Your task to perform on an android device: Go to internet settings Image 0: 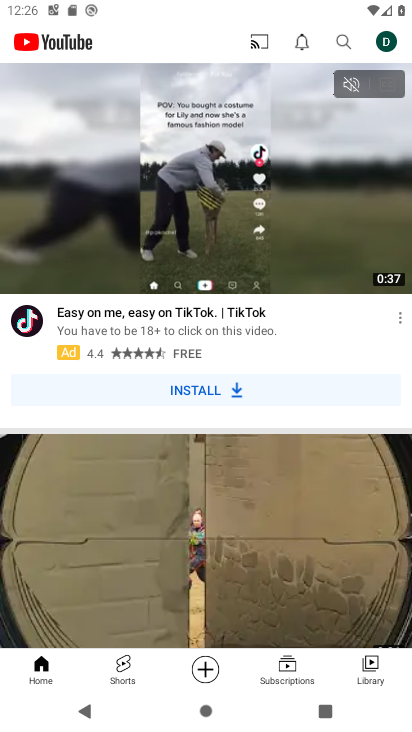
Step 0: press home button
Your task to perform on an android device: Go to internet settings Image 1: 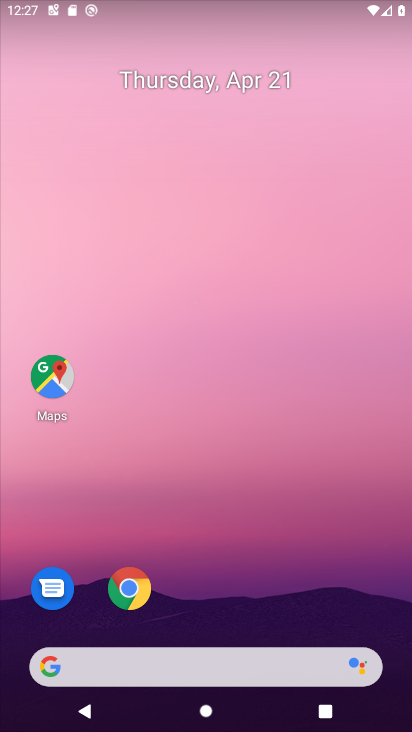
Step 1: drag from (233, 629) to (259, 6)
Your task to perform on an android device: Go to internet settings Image 2: 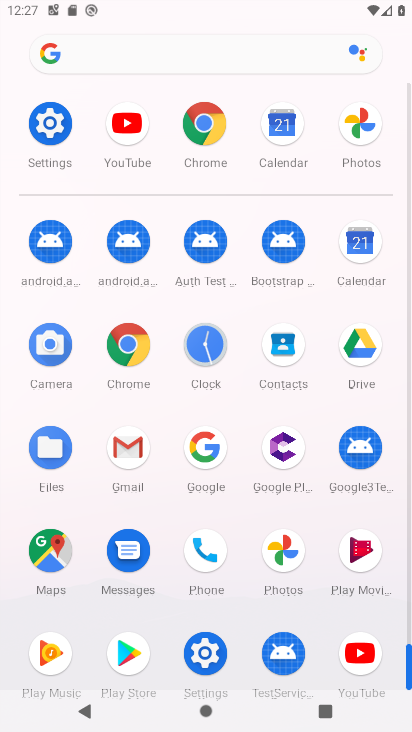
Step 2: click (46, 122)
Your task to perform on an android device: Go to internet settings Image 3: 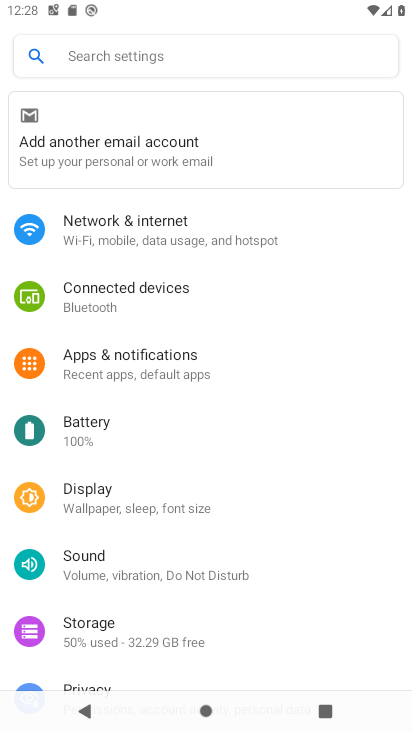
Step 3: click (200, 234)
Your task to perform on an android device: Go to internet settings Image 4: 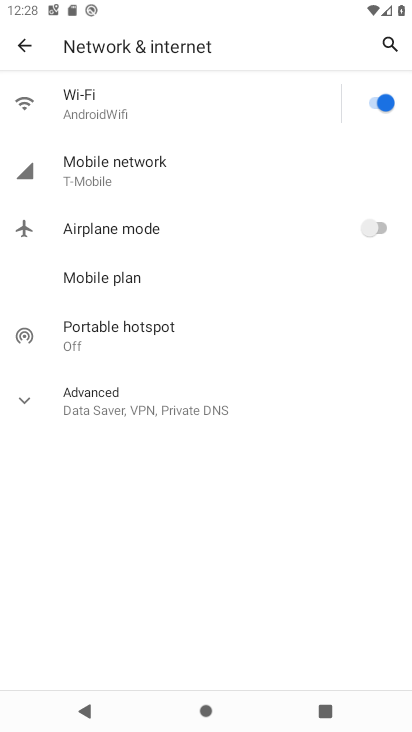
Step 4: click (26, 394)
Your task to perform on an android device: Go to internet settings Image 5: 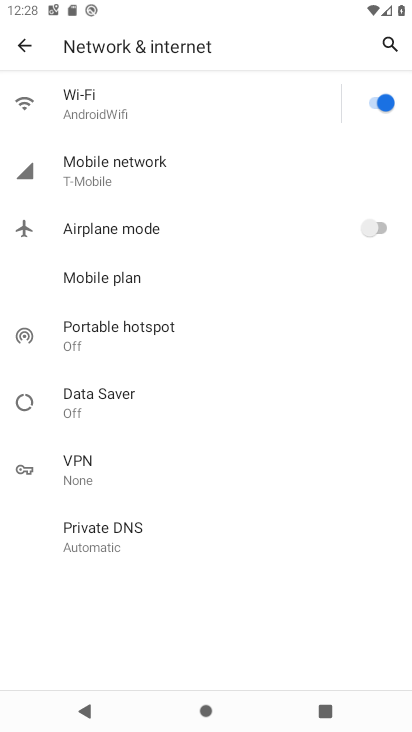
Step 5: task complete